Your task to perform on an android device: Open calendar and show me the first week of next month Image 0: 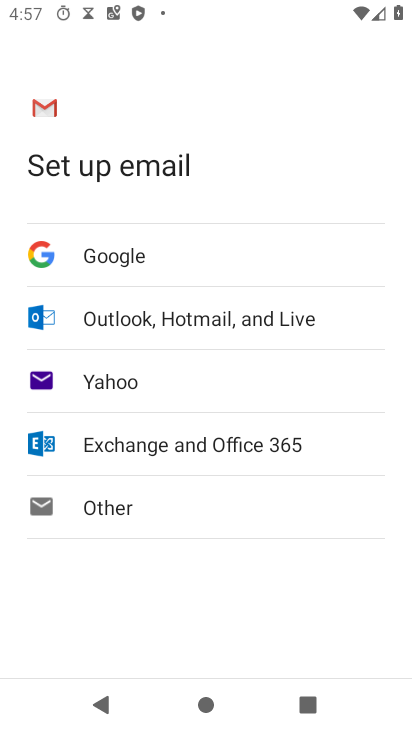
Step 0: press back button
Your task to perform on an android device: Open calendar and show me the first week of next month Image 1: 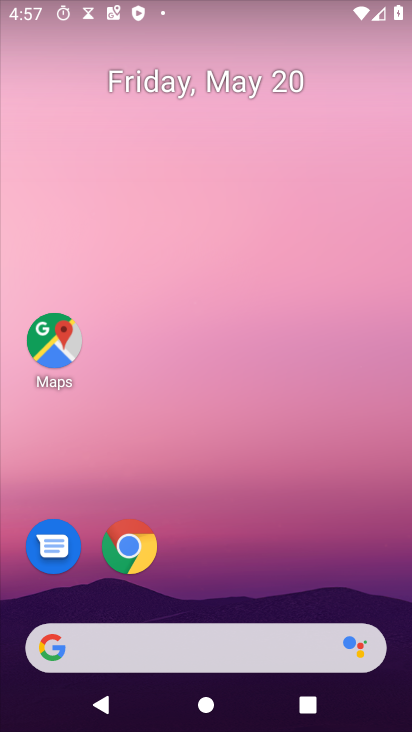
Step 1: drag from (254, 559) to (213, 26)
Your task to perform on an android device: Open calendar and show me the first week of next month Image 2: 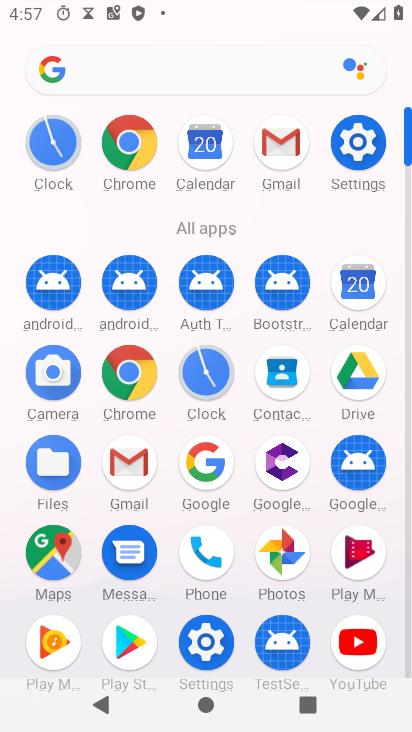
Step 2: click (354, 287)
Your task to perform on an android device: Open calendar and show me the first week of next month Image 3: 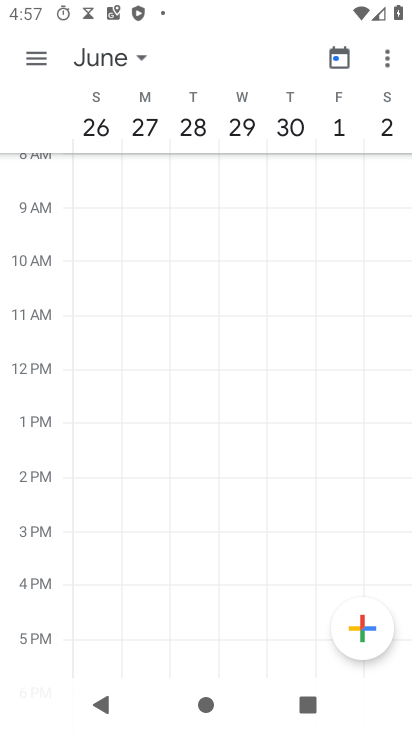
Step 3: click (341, 60)
Your task to perform on an android device: Open calendar and show me the first week of next month Image 4: 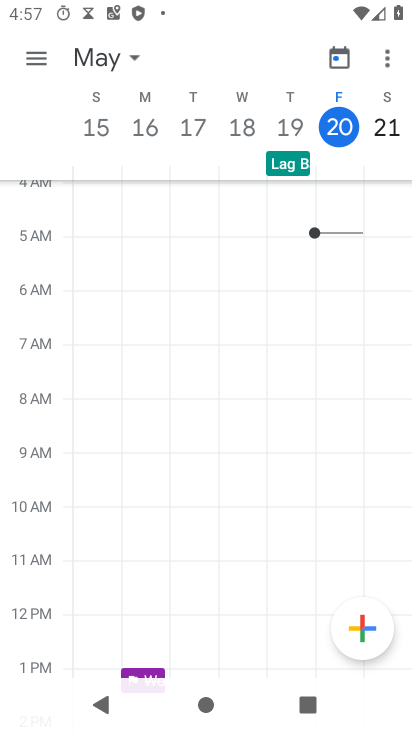
Step 4: click (134, 54)
Your task to perform on an android device: Open calendar and show me the first week of next month Image 5: 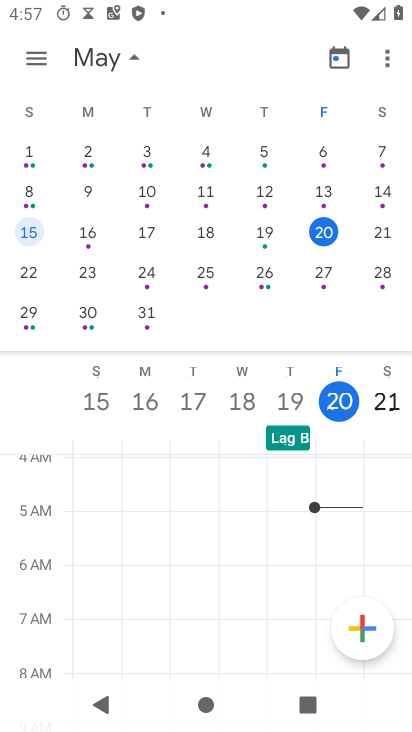
Step 5: drag from (346, 248) to (0, 252)
Your task to perform on an android device: Open calendar and show me the first week of next month Image 6: 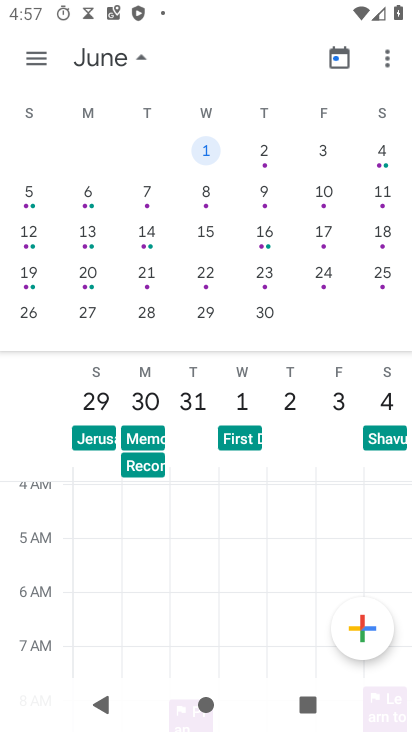
Step 6: click (82, 188)
Your task to perform on an android device: Open calendar and show me the first week of next month Image 7: 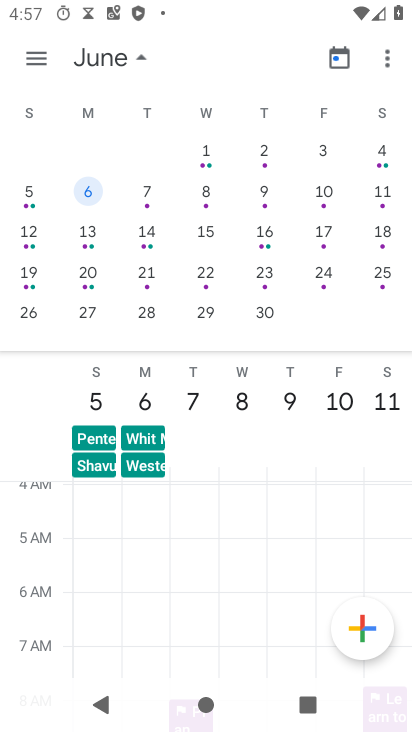
Step 7: click (24, 59)
Your task to perform on an android device: Open calendar and show me the first week of next month Image 8: 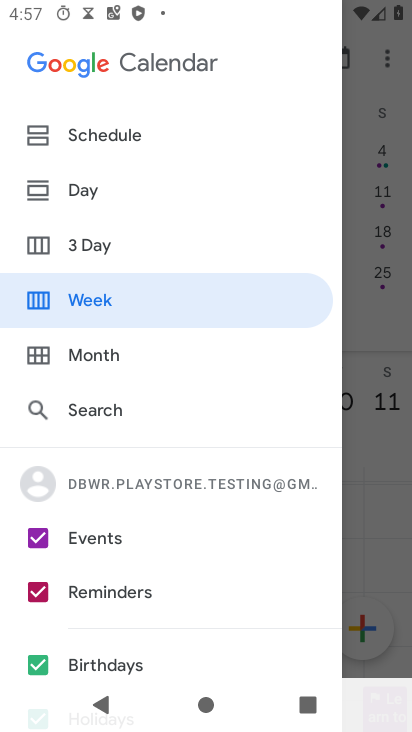
Step 8: click (91, 282)
Your task to perform on an android device: Open calendar and show me the first week of next month Image 9: 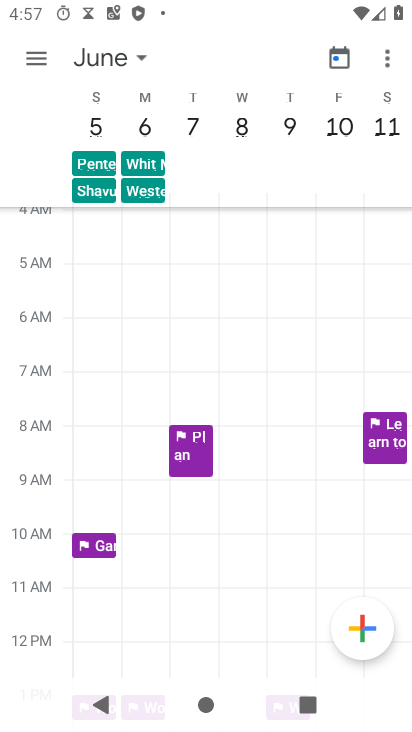
Step 9: task complete